Your task to perform on an android device: turn on bluetooth scan Image 0: 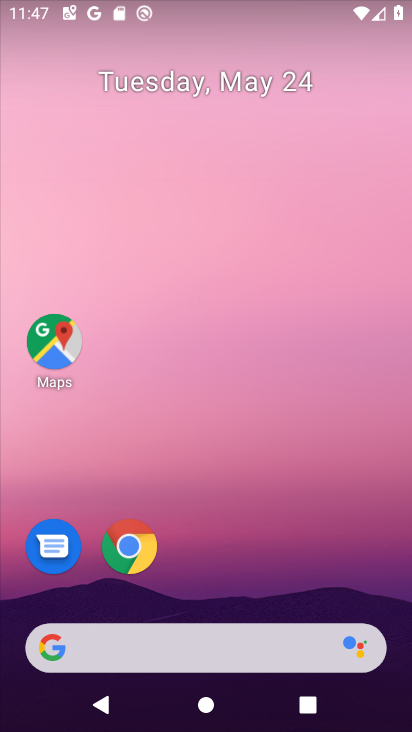
Step 0: drag from (211, 563) to (205, 11)
Your task to perform on an android device: turn on bluetooth scan Image 1: 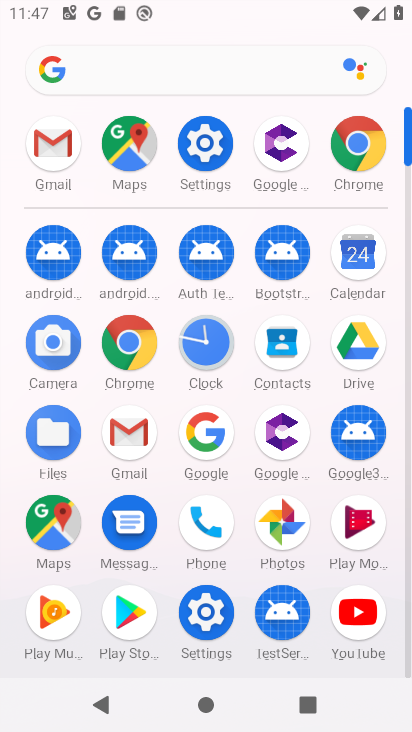
Step 1: click (225, 261)
Your task to perform on an android device: turn on bluetooth scan Image 2: 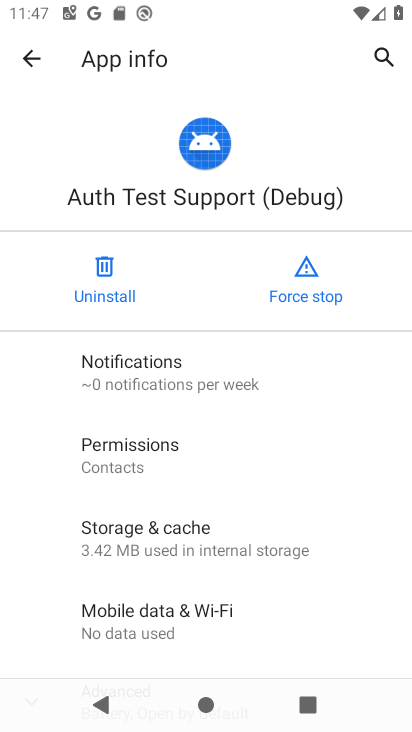
Step 2: press home button
Your task to perform on an android device: turn on bluetooth scan Image 3: 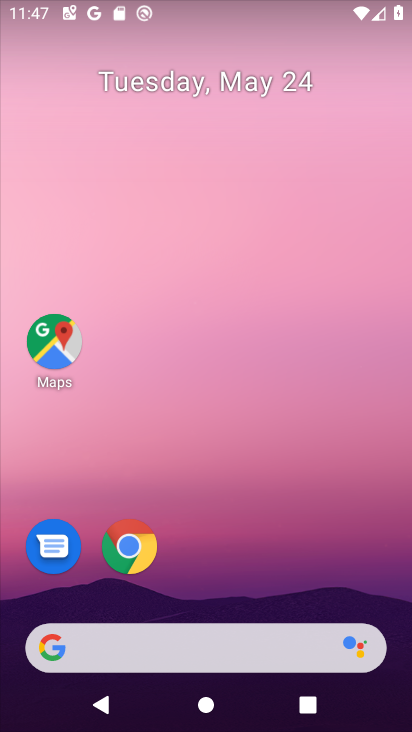
Step 3: drag from (222, 584) to (315, 0)
Your task to perform on an android device: turn on bluetooth scan Image 4: 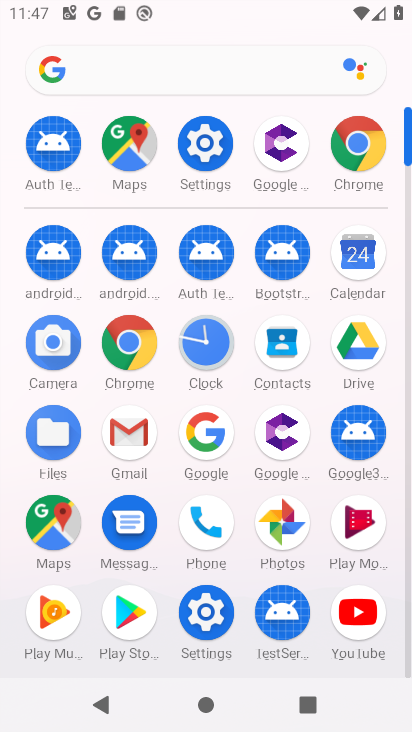
Step 4: click (193, 155)
Your task to perform on an android device: turn on bluetooth scan Image 5: 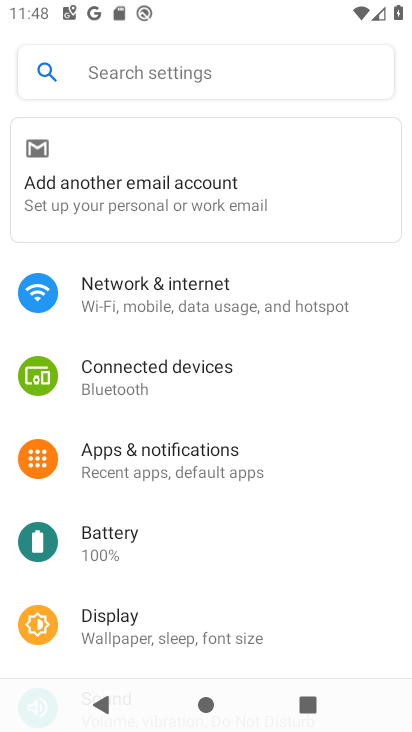
Step 5: drag from (158, 641) to (253, 80)
Your task to perform on an android device: turn on bluetooth scan Image 6: 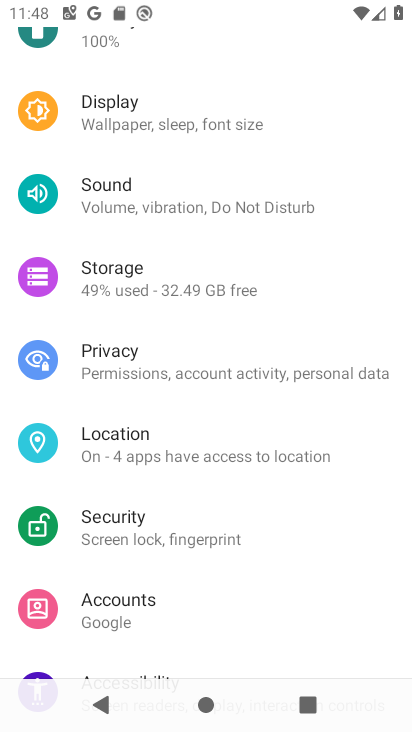
Step 6: click (199, 458)
Your task to perform on an android device: turn on bluetooth scan Image 7: 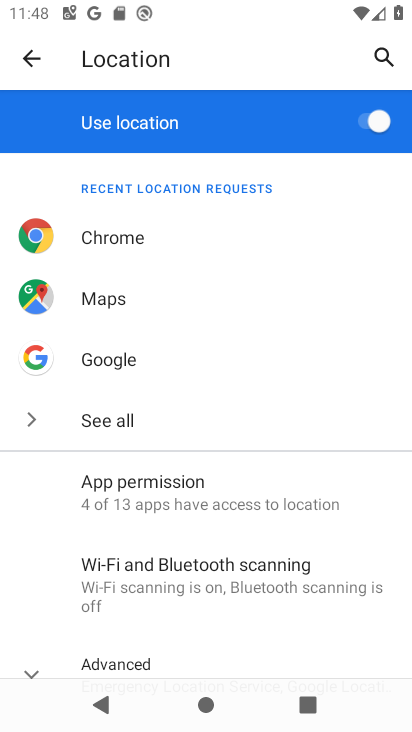
Step 7: drag from (162, 496) to (213, 60)
Your task to perform on an android device: turn on bluetooth scan Image 8: 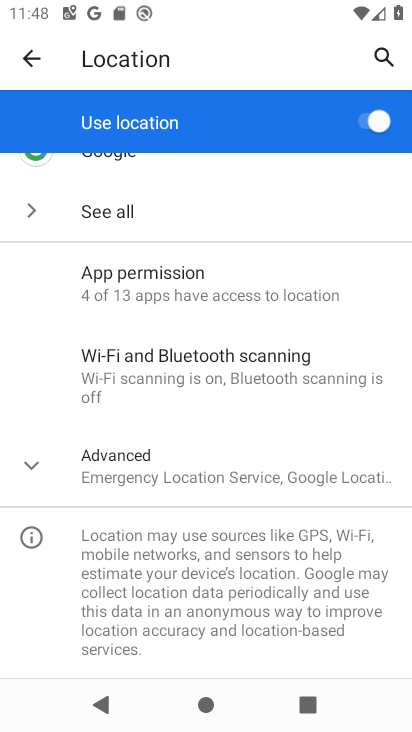
Step 8: click (252, 366)
Your task to perform on an android device: turn on bluetooth scan Image 9: 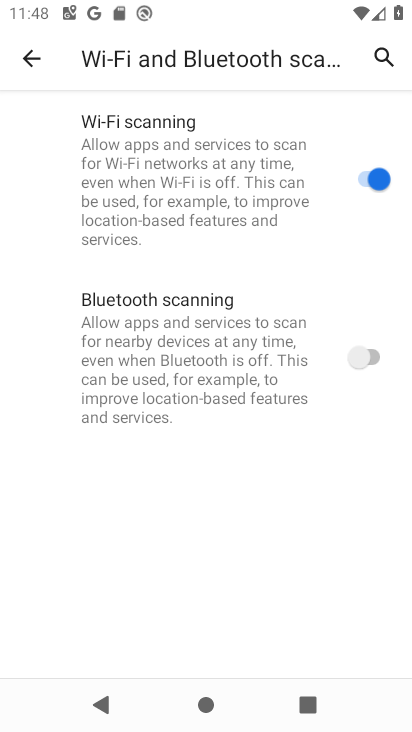
Step 9: click (373, 345)
Your task to perform on an android device: turn on bluetooth scan Image 10: 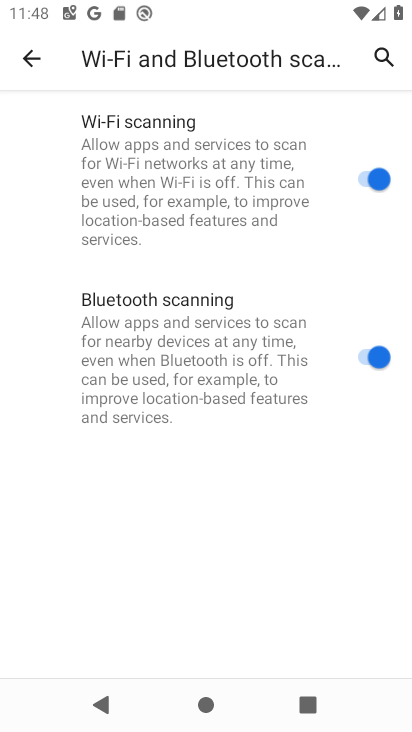
Step 10: task complete